Your task to perform on an android device: Go to CNN.com Image 0: 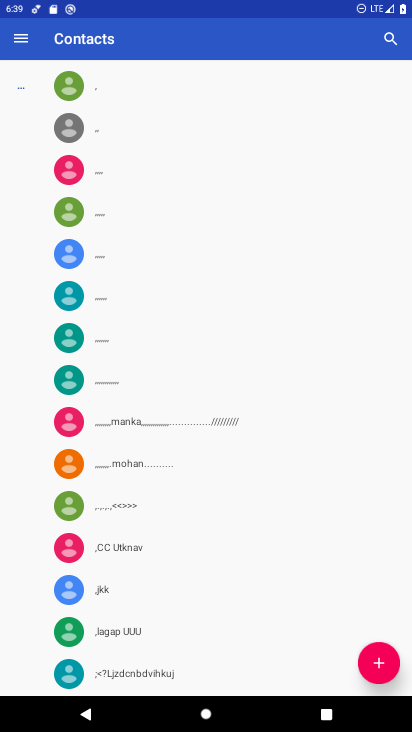
Step 0: press home button
Your task to perform on an android device: Go to CNN.com Image 1: 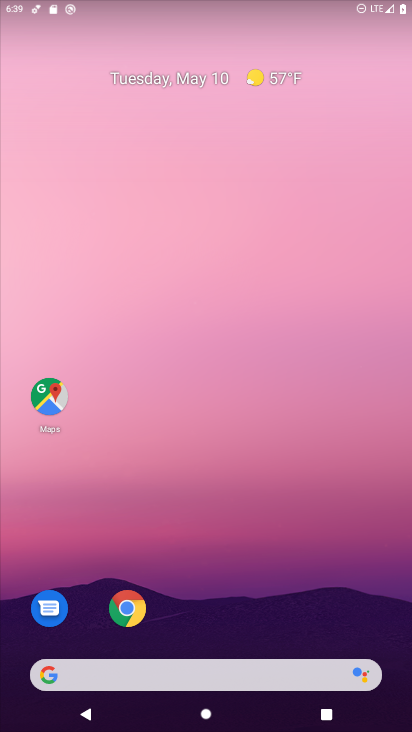
Step 1: drag from (334, 606) to (224, 37)
Your task to perform on an android device: Go to CNN.com Image 2: 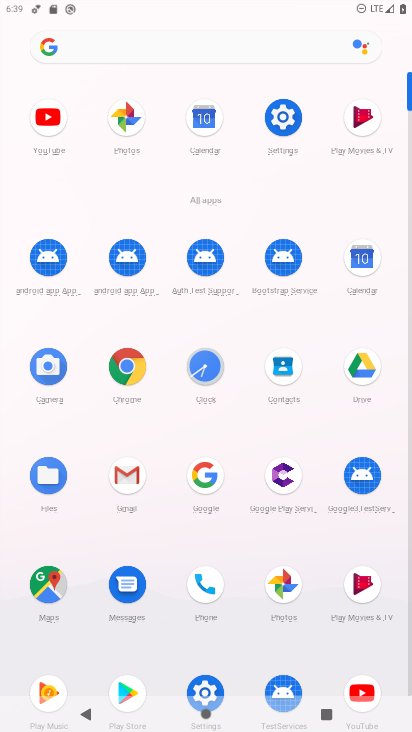
Step 2: click (122, 366)
Your task to perform on an android device: Go to CNN.com Image 3: 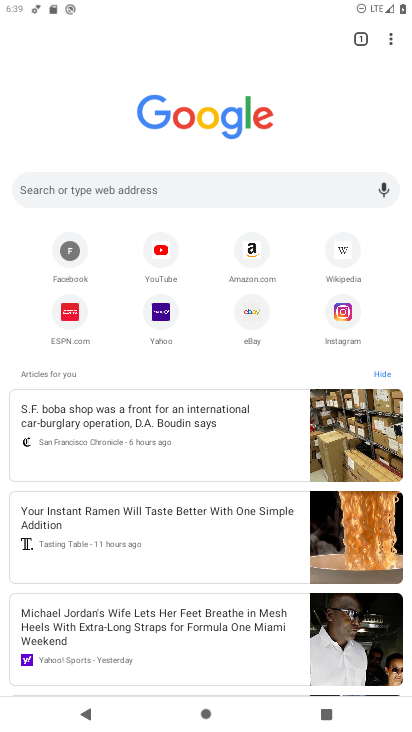
Step 3: click (182, 190)
Your task to perform on an android device: Go to CNN.com Image 4: 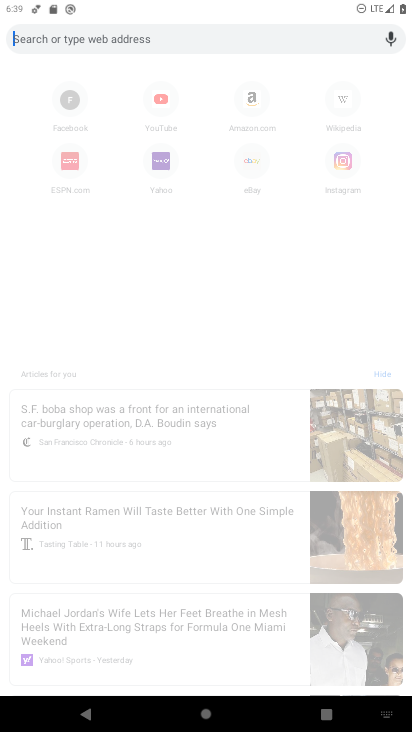
Step 4: type "cnn.com"
Your task to perform on an android device: Go to CNN.com Image 5: 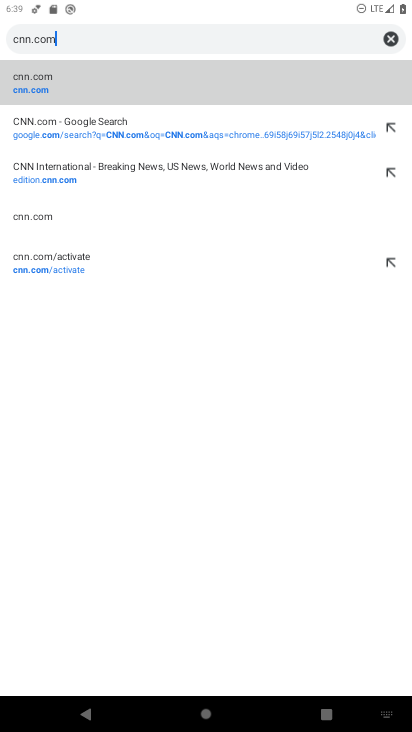
Step 5: click (143, 78)
Your task to perform on an android device: Go to CNN.com Image 6: 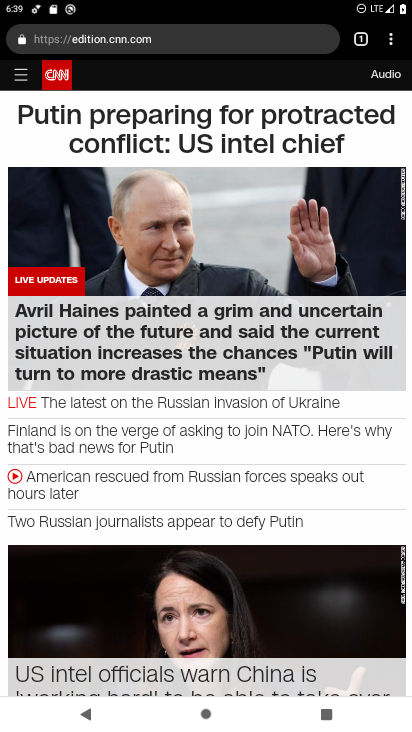
Step 6: task complete